Your task to perform on an android device: stop showing notifications on the lock screen Image 0: 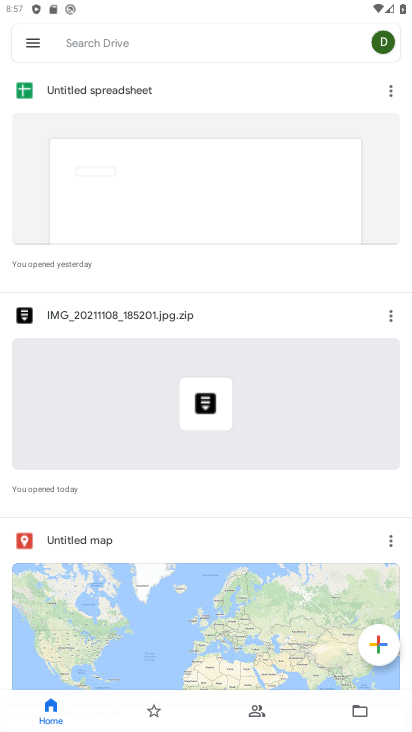
Step 0: press home button
Your task to perform on an android device: stop showing notifications on the lock screen Image 1: 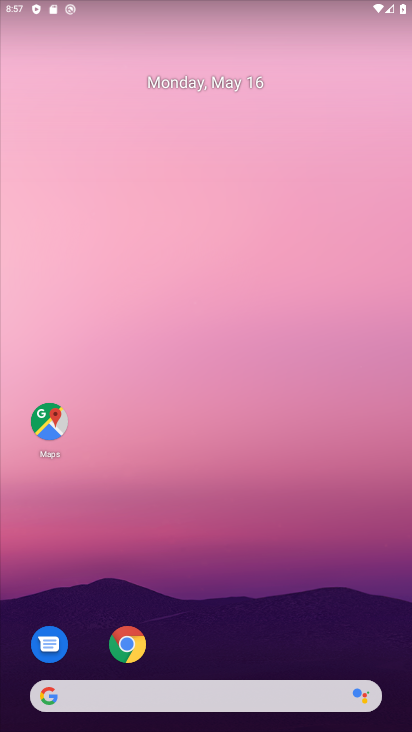
Step 1: drag from (211, 677) to (383, 408)
Your task to perform on an android device: stop showing notifications on the lock screen Image 2: 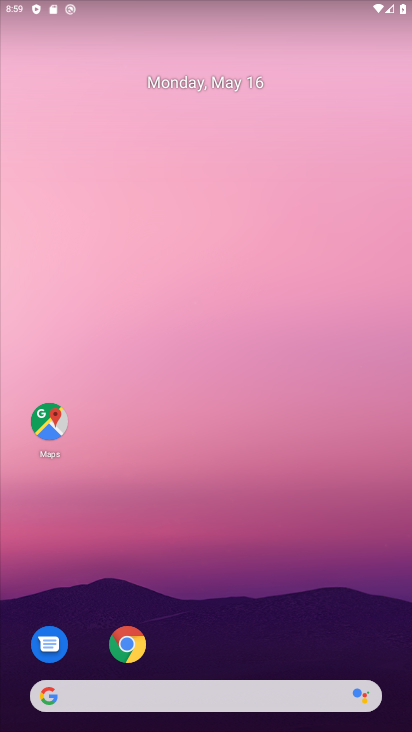
Step 2: drag from (148, 728) to (168, 70)
Your task to perform on an android device: stop showing notifications on the lock screen Image 3: 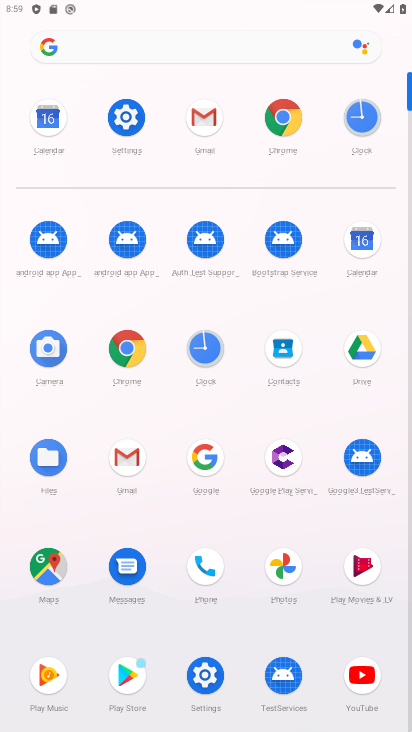
Step 3: click (118, 121)
Your task to perform on an android device: stop showing notifications on the lock screen Image 4: 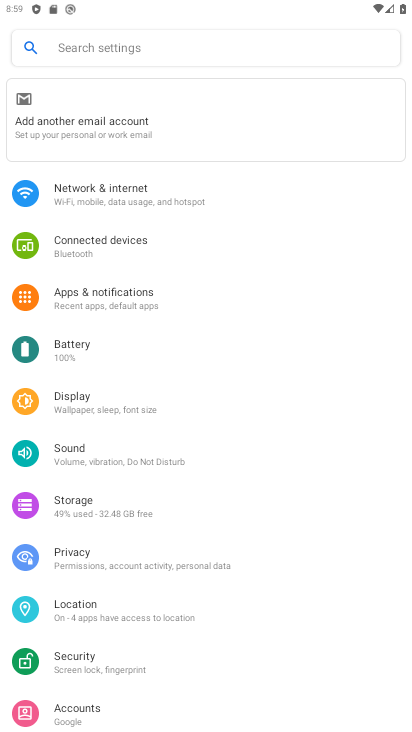
Step 4: click (98, 305)
Your task to perform on an android device: stop showing notifications on the lock screen Image 5: 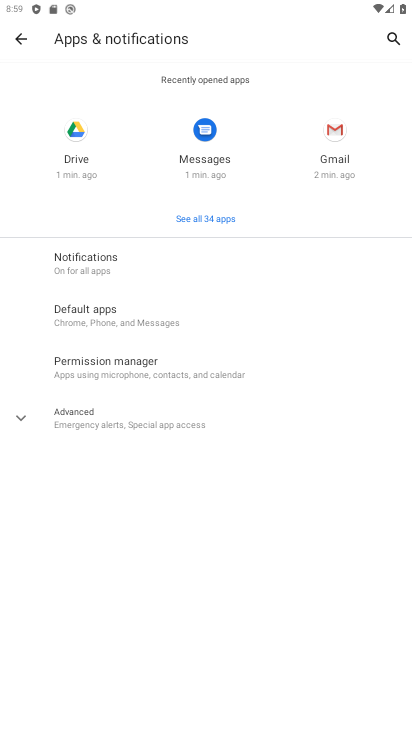
Step 5: click (125, 271)
Your task to perform on an android device: stop showing notifications on the lock screen Image 6: 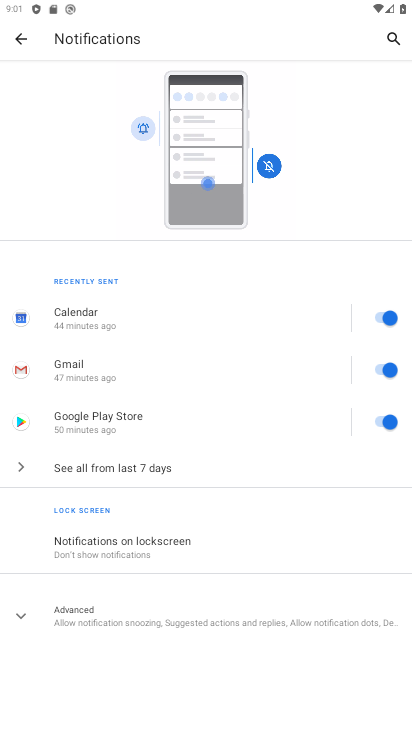
Step 6: click (160, 549)
Your task to perform on an android device: stop showing notifications on the lock screen Image 7: 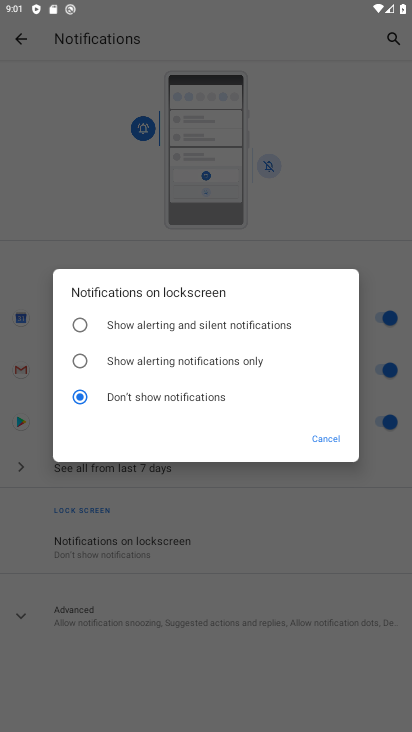
Step 7: click (145, 325)
Your task to perform on an android device: stop showing notifications on the lock screen Image 8: 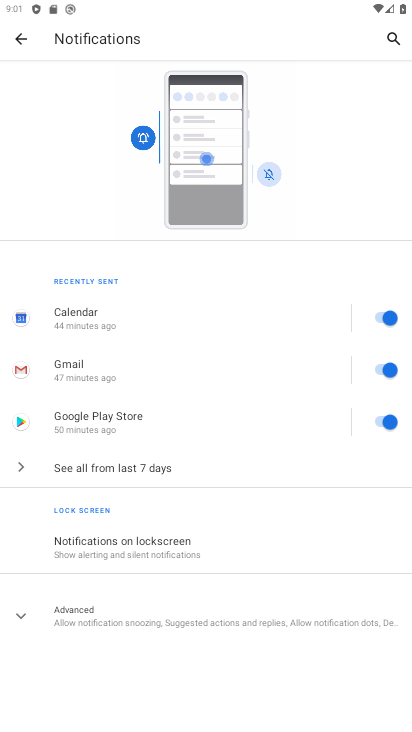
Step 8: click (308, 544)
Your task to perform on an android device: stop showing notifications on the lock screen Image 9: 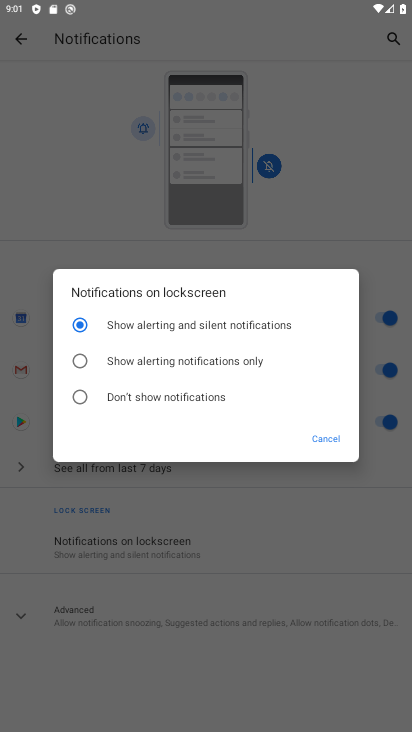
Step 9: click (214, 404)
Your task to perform on an android device: stop showing notifications on the lock screen Image 10: 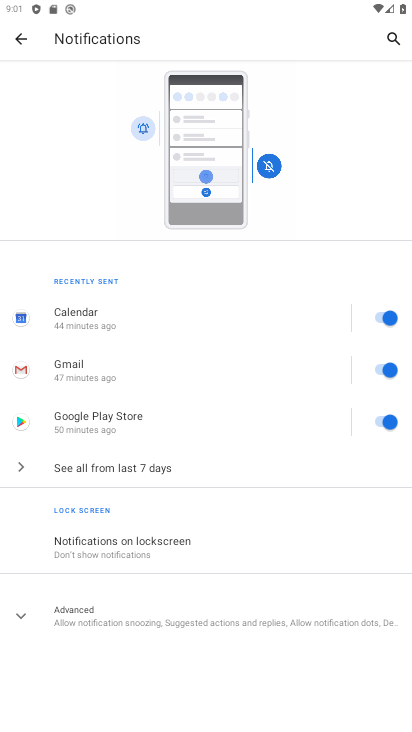
Step 10: task complete